Your task to perform on an android device: Open calendar and show me the fourth week of next month Image 0: 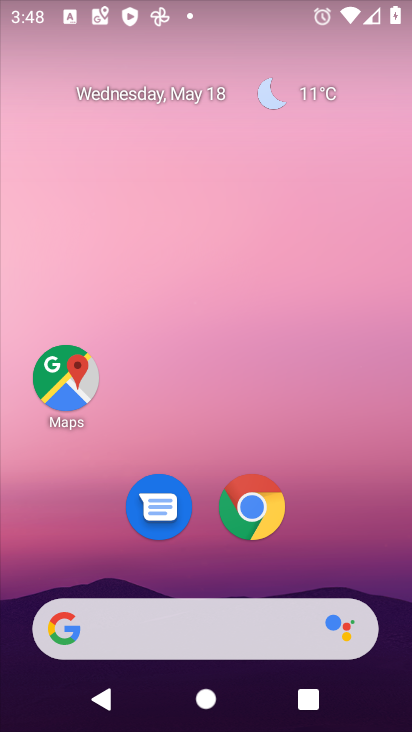
Step 0: drag from (397, 619) to (344, 164)
Your task to perform on an android device: Open calendar and show me the fourth week of next month Image 1: 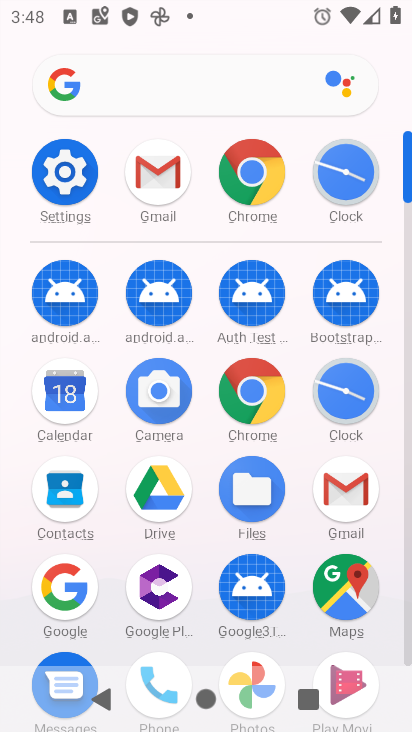
Step 1: click (66, 396)
Your task to perform on an android device: Open calendar and show me the fourth week of next month Image 2: 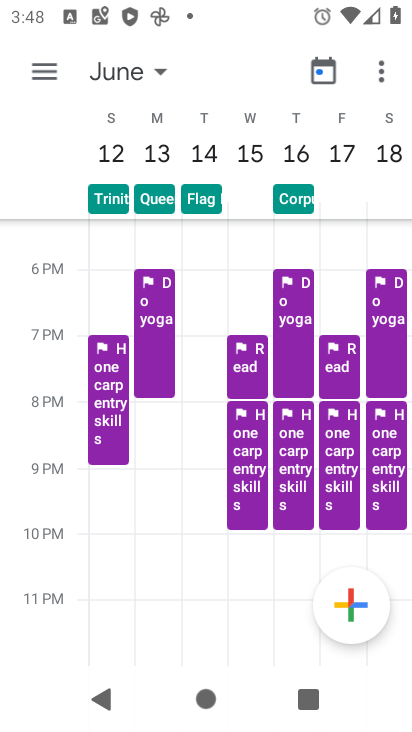
Step 2: click (160, 65)
Your task to perform on an android device: Open calendar and show me the fourth week of next month Image 3: 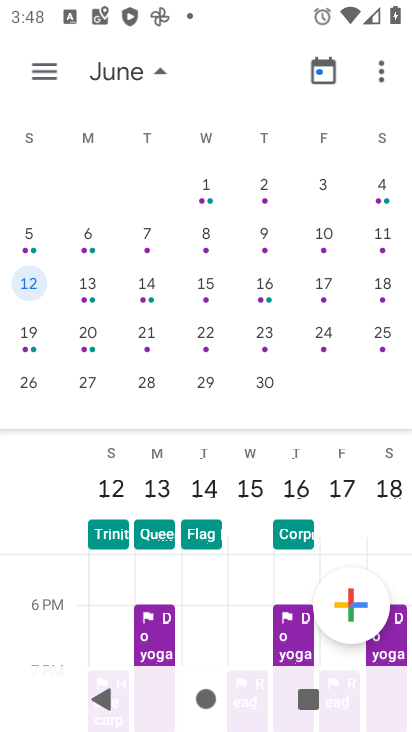
Step 3: click (24, 338)
Your task to perform on an android device: Open calendar and show me the fourth week of next month Image 4: 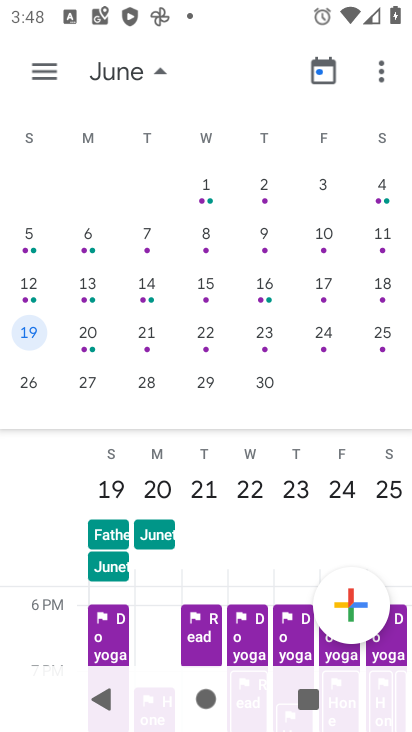
Step 4: task complete